Your task to perform on an android device: turn on data saver in the chrome app Image 0: 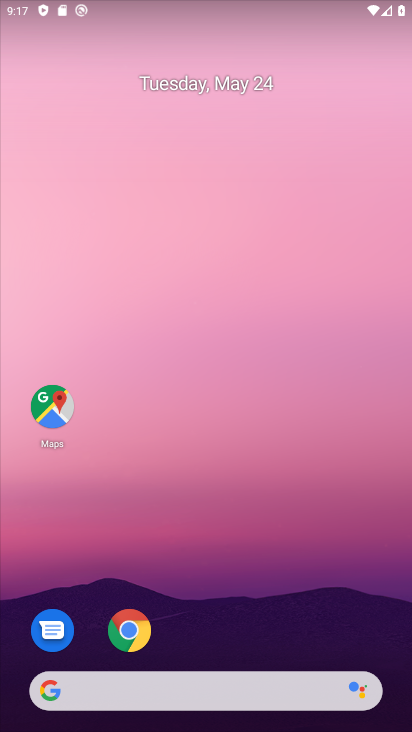
Step 0: press home button
Your task to perform on an android device: turn on data saver in the chrome app Image 1: 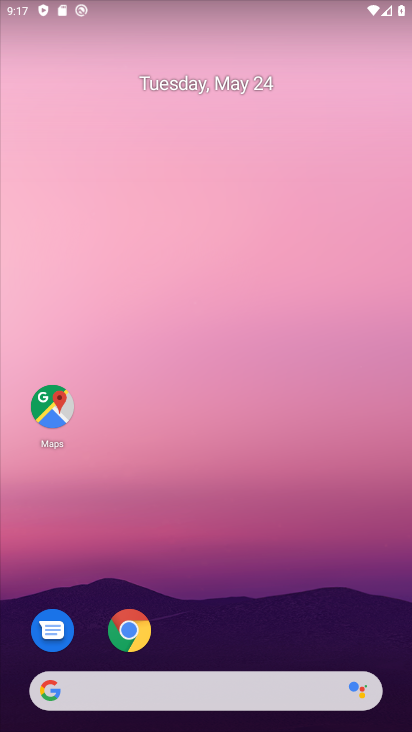
Step 1: click (125, 623)
Your task to perform on an android device: turn on data saver in the chrome app Image 2: 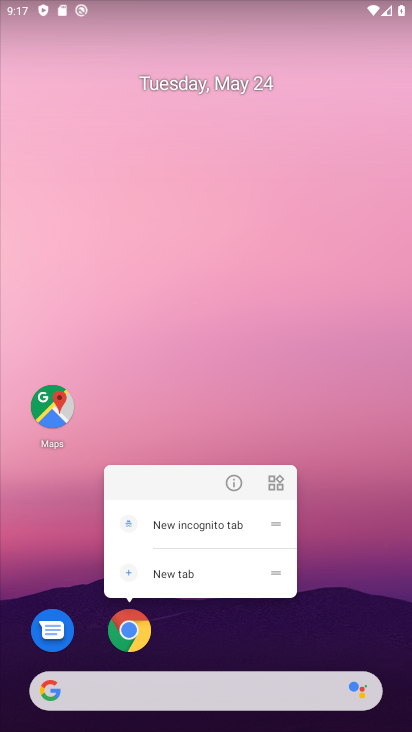
Step 2: click (125, 623)
Your task to perform on an android device: turn on data saver in the chrome app Image 3: 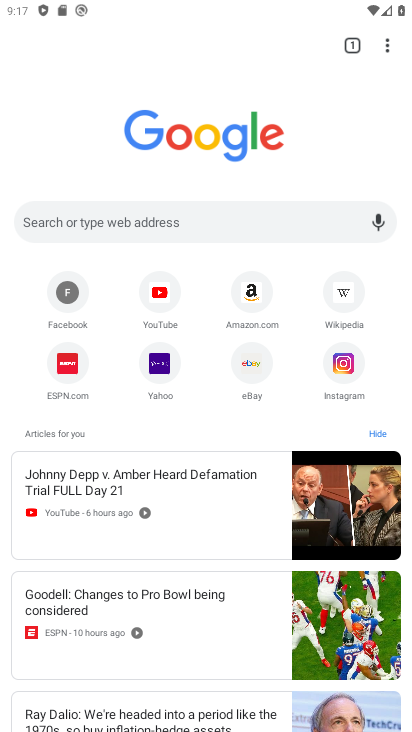
Step 3: click (387, 38)
Your task to perform on an android device: turn on data saver in the chrome app Image 4: 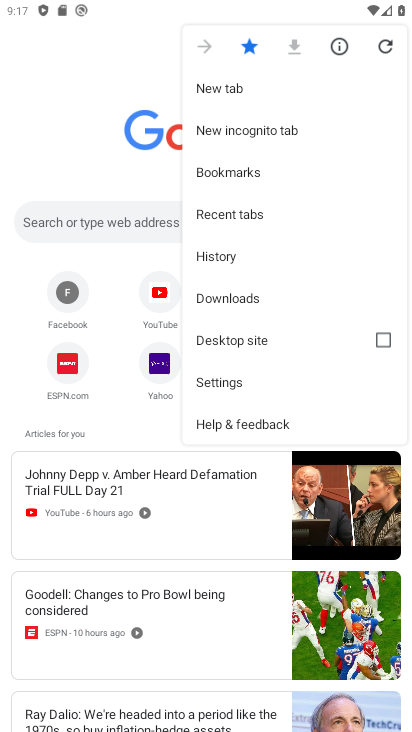
Step 4: click (248, 381)
Your task to perform on an android device: turn on data saver in the chrome app Image 5: 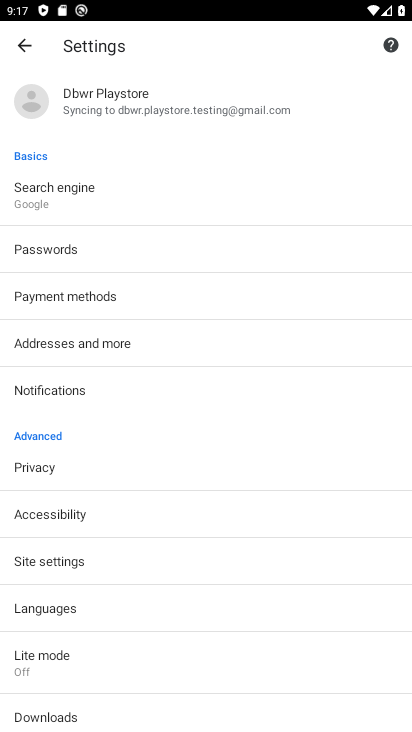
Step 5: click (60, 669)
Your task to perform on an android device: turn on data saver in the chrome app Image 6: 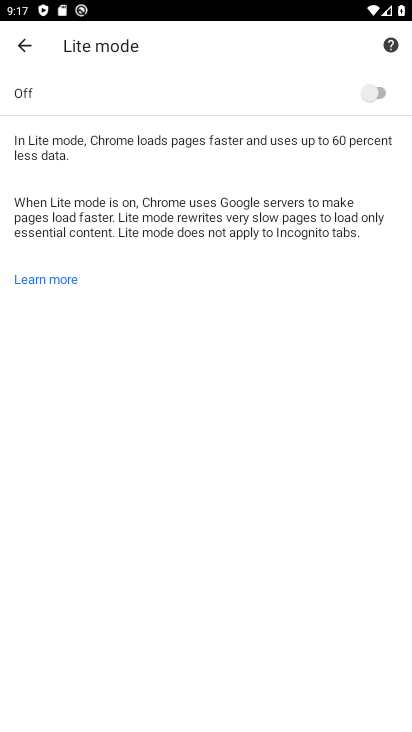
Step 6: click (378, 88)
Your task to perform on an android device: turn on data saver in the chrome app Image 7: 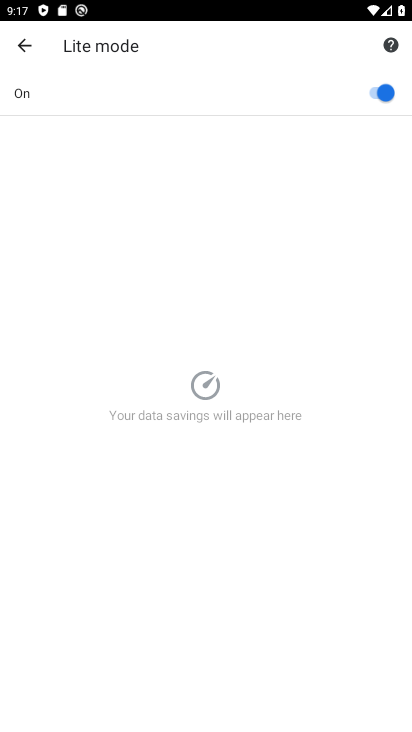
Step 7: task complete